Your task to perform on an android device: toggle javascript in the chrome app Image 0: 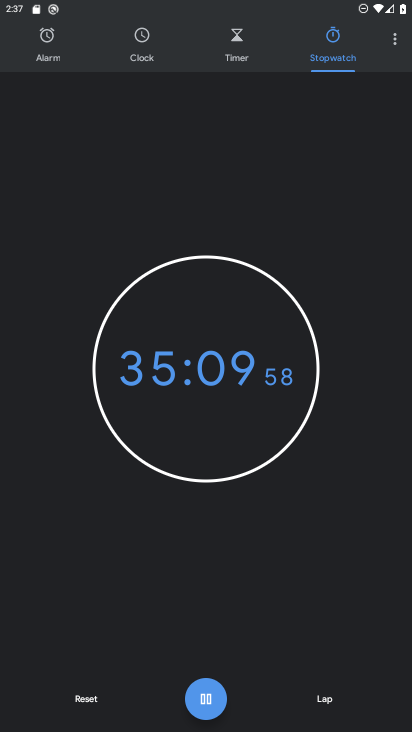
Step 0: press home button
Your task to perform on an android device: toggle javascript in the chrome app Image 1: 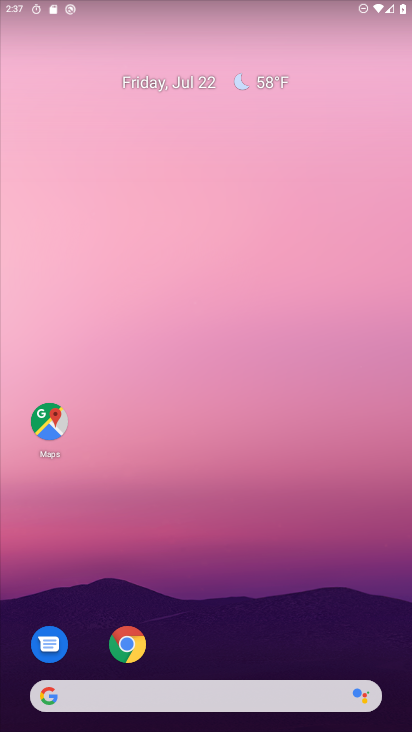
Step 1: click (123, 639)
Your task to perform on an android device: toggle javascript in the chrome app Image 2: 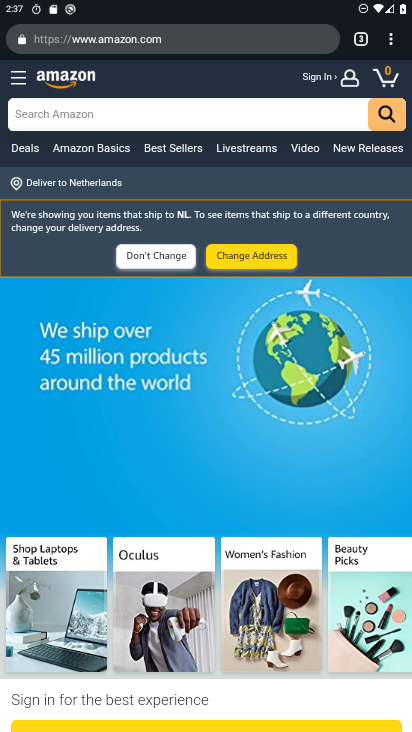
Step 2: click (394, 48)
Your task to perform on an android device: toggle javascript in the chrome app Image 3: 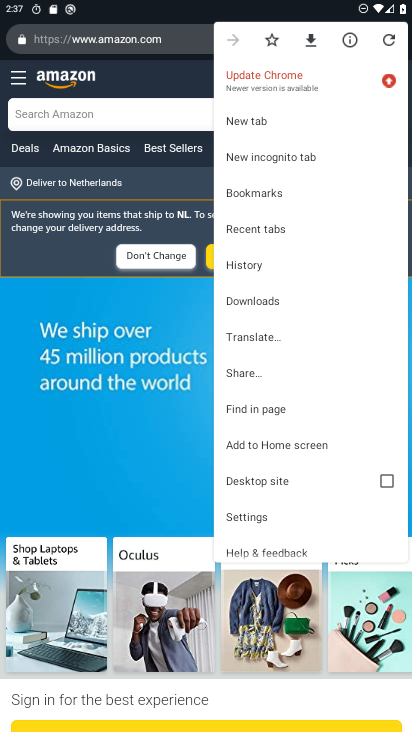
Step 3: click (253, 515)
Your task to perform on an android device: toggle javascript in the chrome app Image 4: 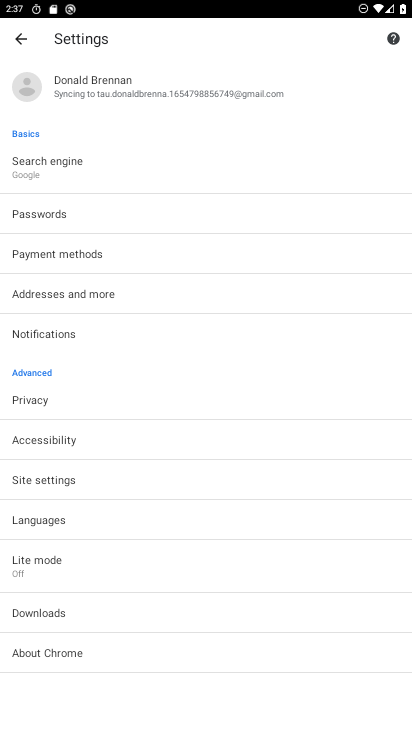
Step 4: click (86, 486)
Your task to perform on an android device: toggle javascript in the chrome app Image 5: 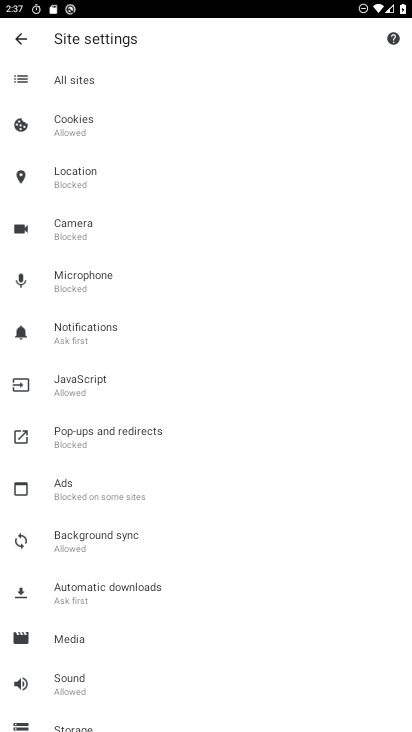
Step 5: click (142, 383)
Your task to perform on an android device: toggle javascript in the chrome app Image 6: 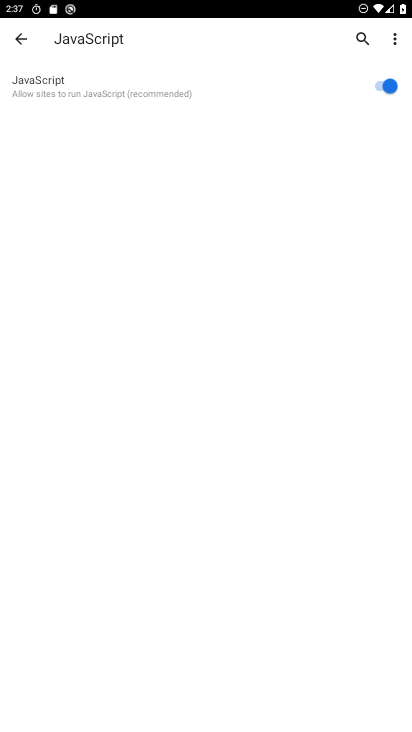
Step 6: click (383, 87)
Your task to perform on an android device: toggle javascript in the chrome app Image 7: 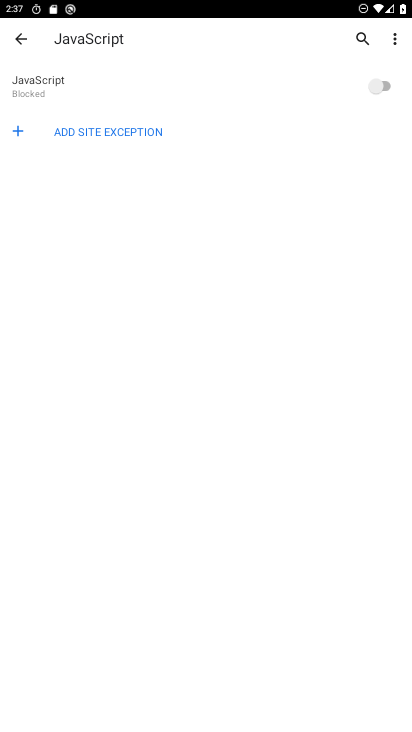
Step 7: task complete